Your task to perform on an android device: Check the weather Image 0: 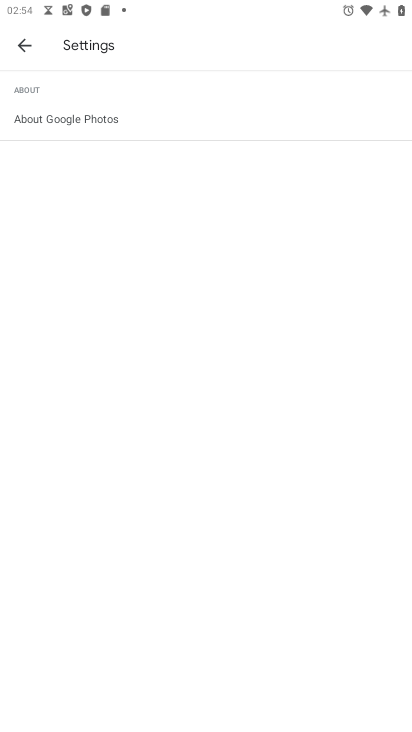
Step 0: press home button
Your task to perform on an android device: Check the weather Image 1: 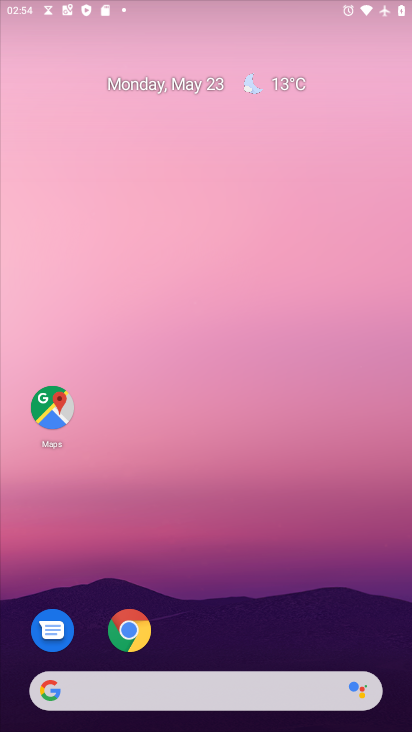
Step 1: click (290, 75)
Your task to perform on an android device: Check the weather Image 2: 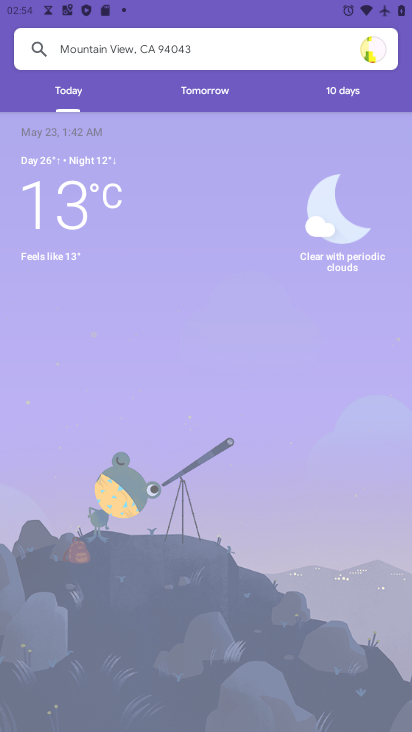
Step 2: task complete